Your task to perform on an android device: Is it going to rain this weekend? Image 0: 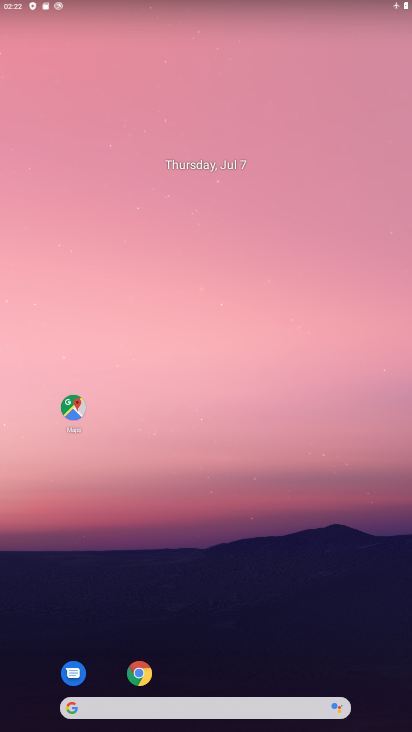
Step 0: drag from (217, 661) to (235, 292)
Your task to perform on an android device: Is it going to rain this weekend? Image 1: 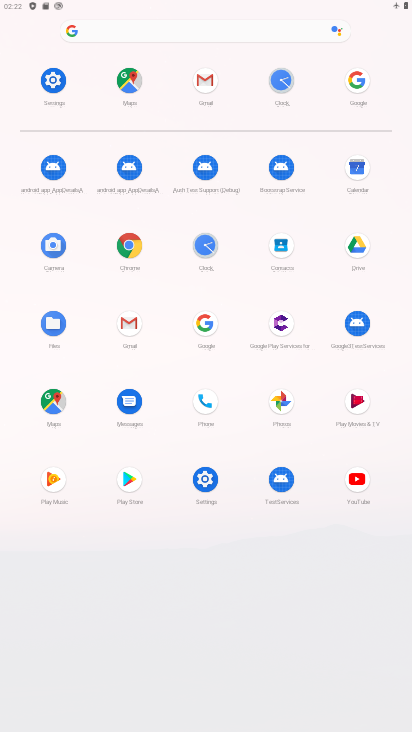
Step 1: click (191, 330)
Your task to perform on an android device: Is it going to rain this weekend? Image 2: 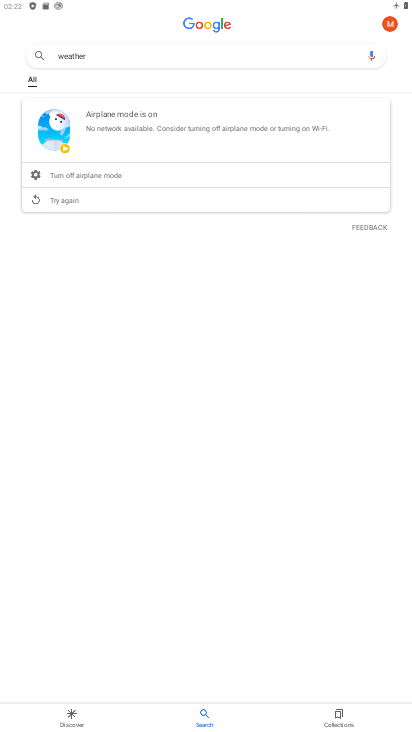
Step 2: task complete